Your task to perform on an android device: turn vacation reply on in the gmail app Image 0: 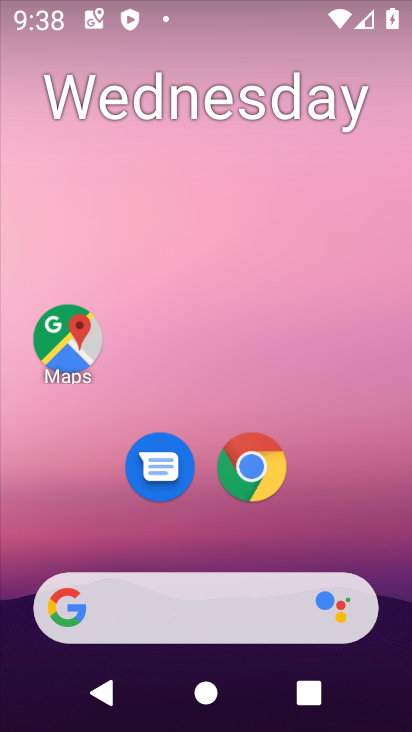
Step 0: drag from (291, 549) to (236, 88)
Your task to perform on an android device: turn vacation reply on in the gmail app Image 1: 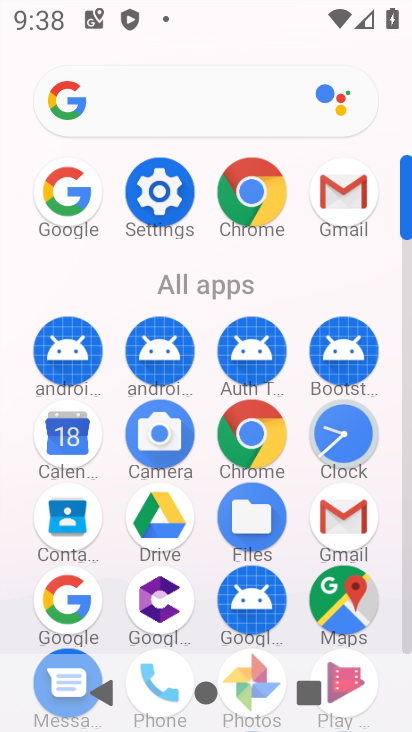
Step 1: click (330, 513)
Your task to perform on an android device: turn vacation reply on in the gmail app Image 2: 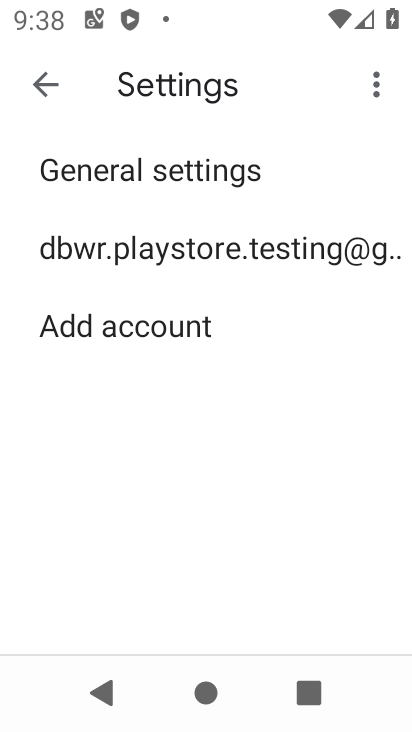
Step 2: click (174, 265)
Your task to perform on an android device: turn vacation reply on in the gmail app Image 3: 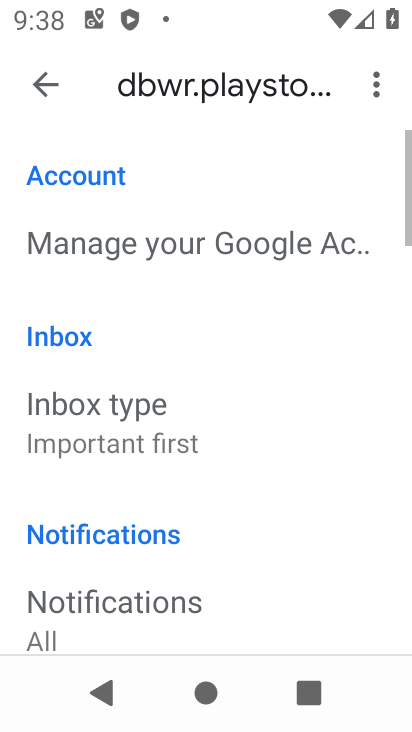
Step 3: drag from (234, 581) to (214, 120)
Your task to perform on an android device: turn vacation reply on in the gmail app Image 4: 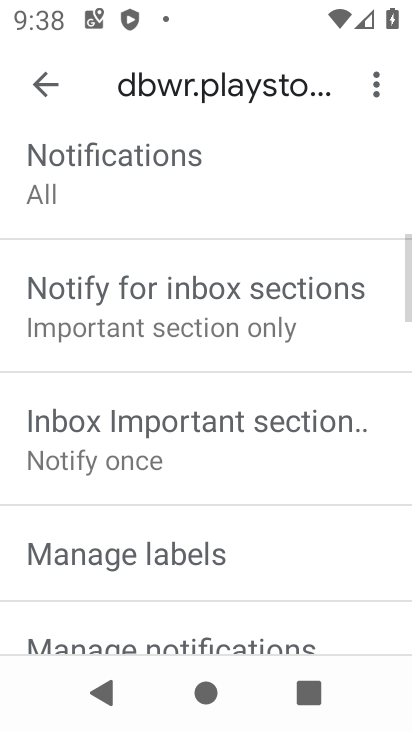
Step 4: drag from (215, 493) to (232, 172)
Your task to perform on an android device: turn vacation reply on in the gmail app Image 5: 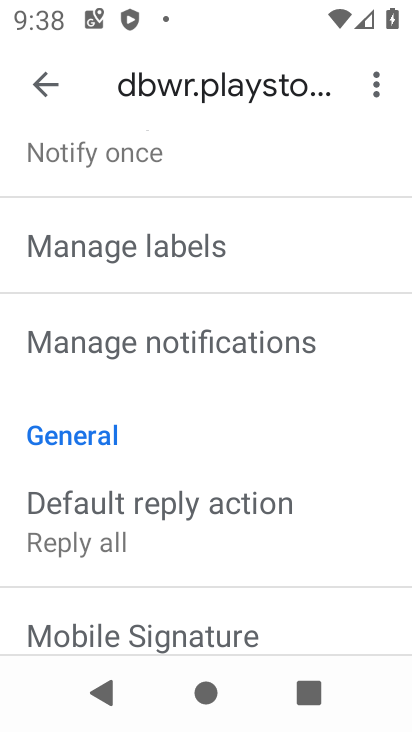
Step 5: drag from (214, 530) to (248, 173)
Your task to perform on an android device: turn vacation reply on in the gmail app Image 6: 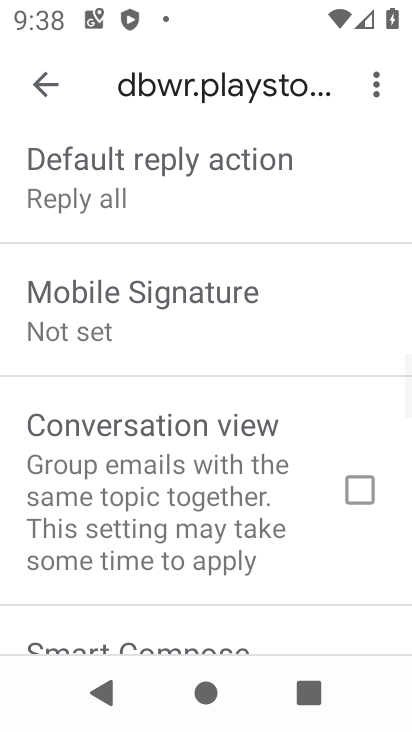
Step 6: drag from (210, 551) to (238, 217)
Your task to perform on an android device: turn vacation reply on in the gmail app Image 7: 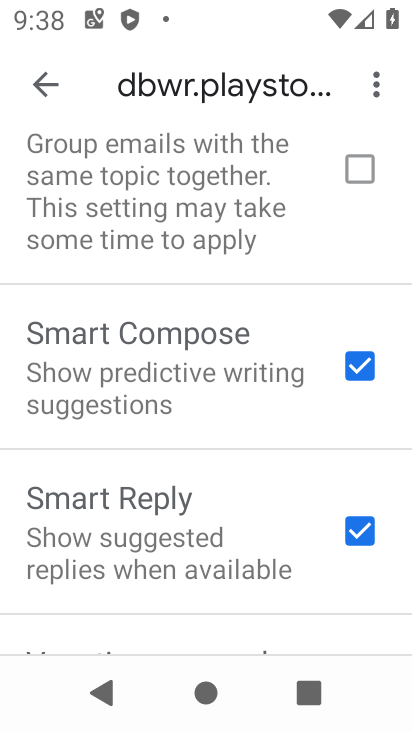
Step 7: drag from (240, 413) to (246, 241)
Your task to perform on an android device: turn vacation reply on in the gmail app Image 8: 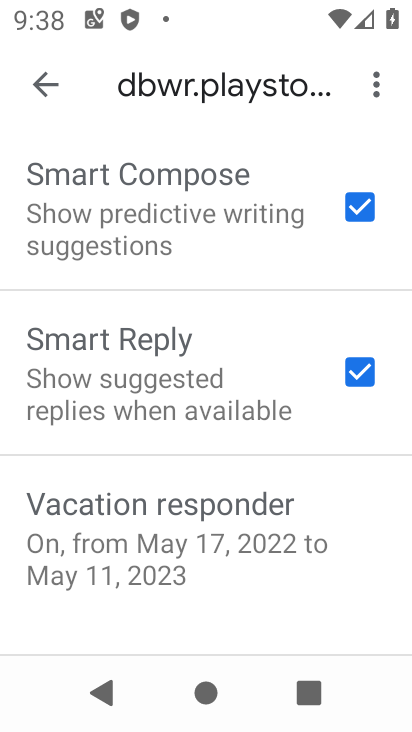
Step 8: click (155, 505)
Your task to perform on an android device: turn vacation reply on in the gmail app Image 9: 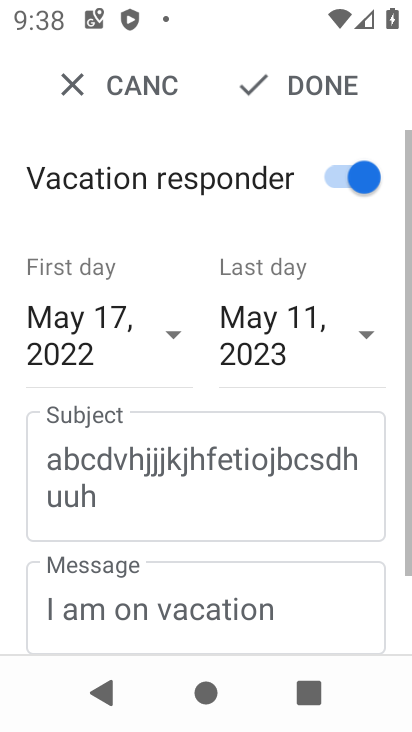
Step 9: click (322, 77)
Your task to perform on an android device: turn vacation reply on in the gmail app Image 10: 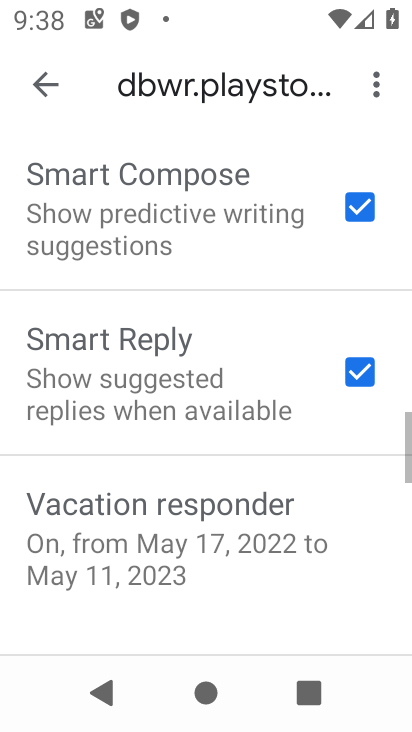
Step 10: task complete